Your task to perform on an android device: read, delete, or share a saved page in the chrome app Image 0: 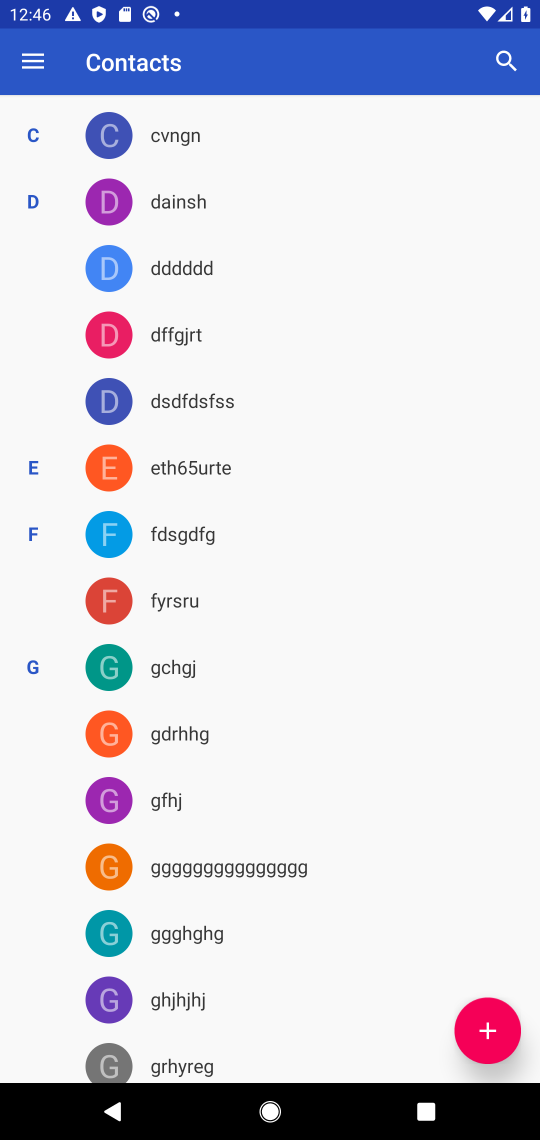
Step 0: press home button
Your task to perform on an android device: read, delete, or share a saved page in the chrome app Image 1: 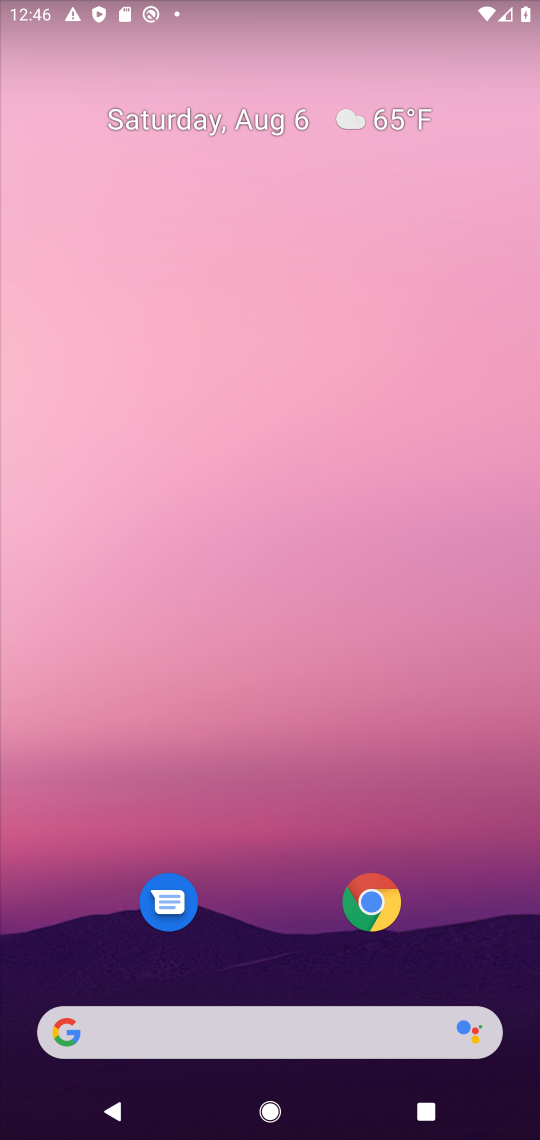
Step 1: click (380, 898)
Your task to perform on an android device: read, delete, or share a saved page in the chrome app Image 2: 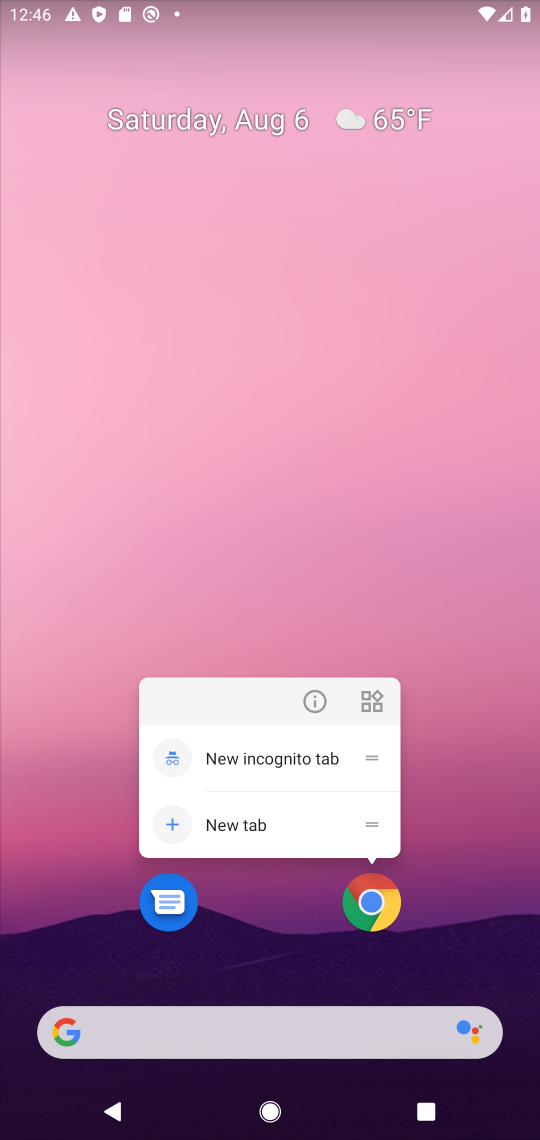
Step 2: click (361, 913)
Your task to perform on an android device: read, delete, or share a saved page in the chrome app Image 3: 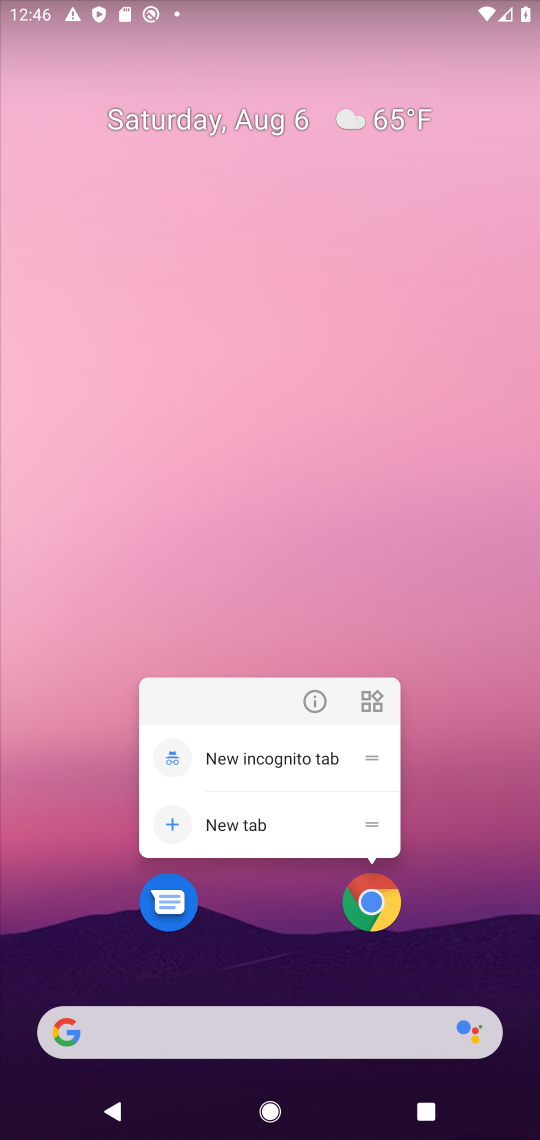
Step 3: click (374, 906)
Your task to perform on an android device: read, delete, or share a saved page in the chrome app Image 4: 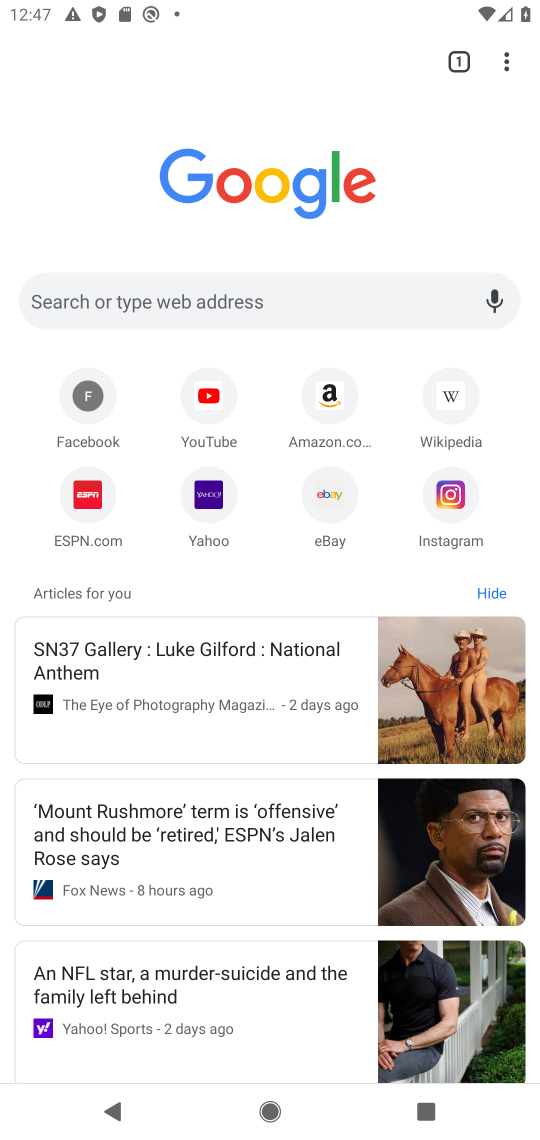
Step 4: click (514, 67)
Your task to perform on an android device: read, delete, or share a saved page in the chrome app Image 5: 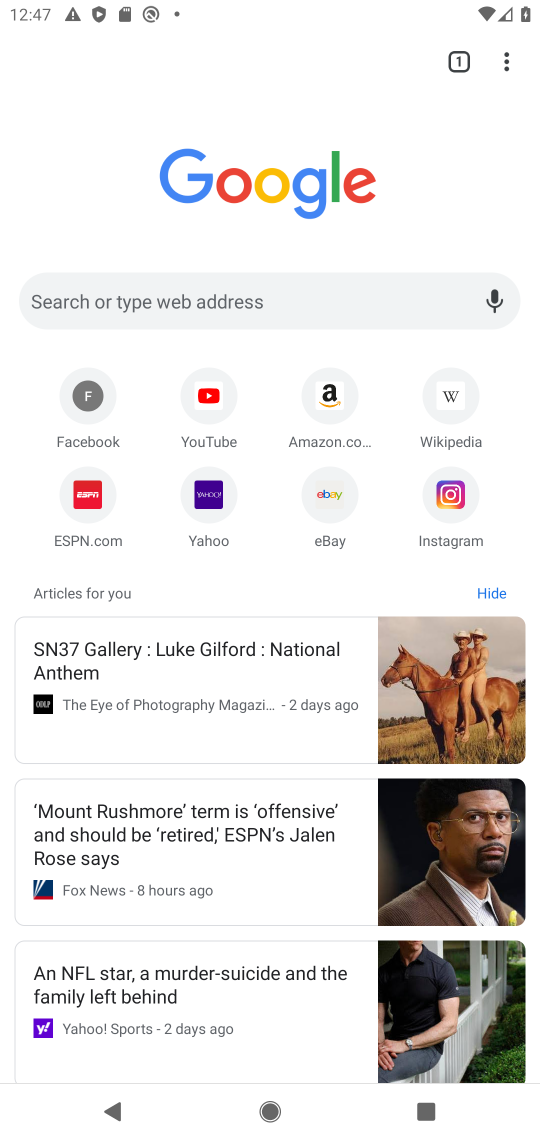
Step 5: click (503, 60)
Your task to perform on an android device: read, delete, or share a saved page in the chrome app Image 6: 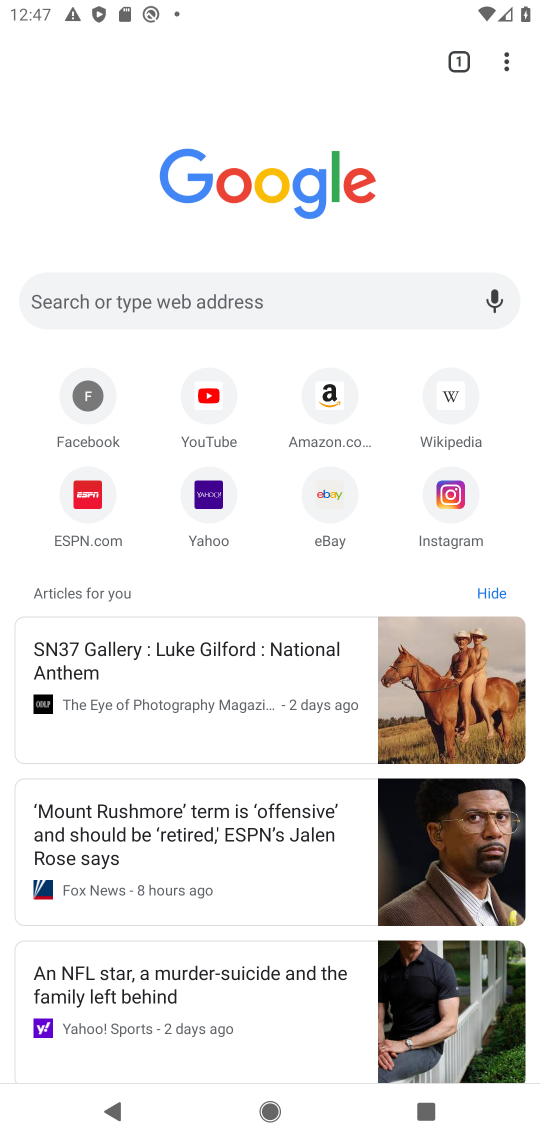
Step 6: click (506, 63)
Your task to perform on an android device: read, delete, or share a saved page in the chrome app Image 7: 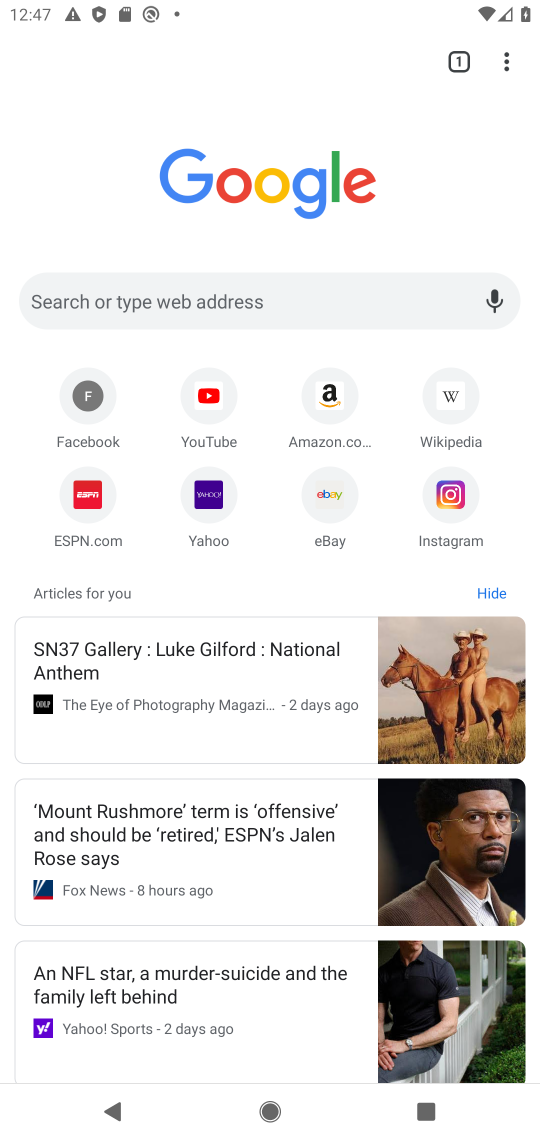
Step 7: click (512, 56)
Your task to perform on an android device: read, delete, or share a saved page in the chrome app Image 8: 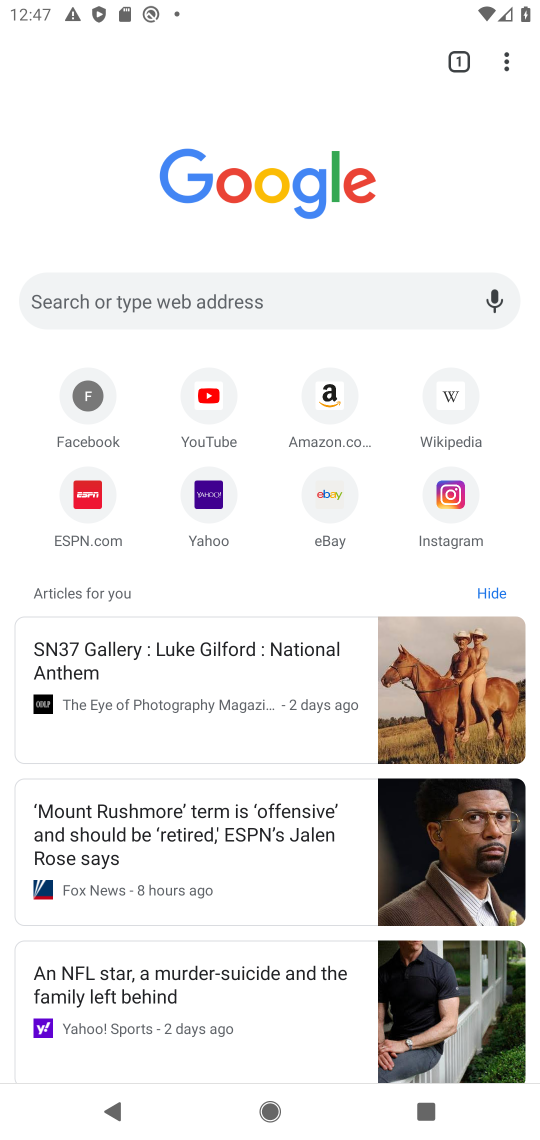
Step 8: click (501, 53)
Your task to perform on an android device: read, delete, or share a saved page in the chrome app Image 9: 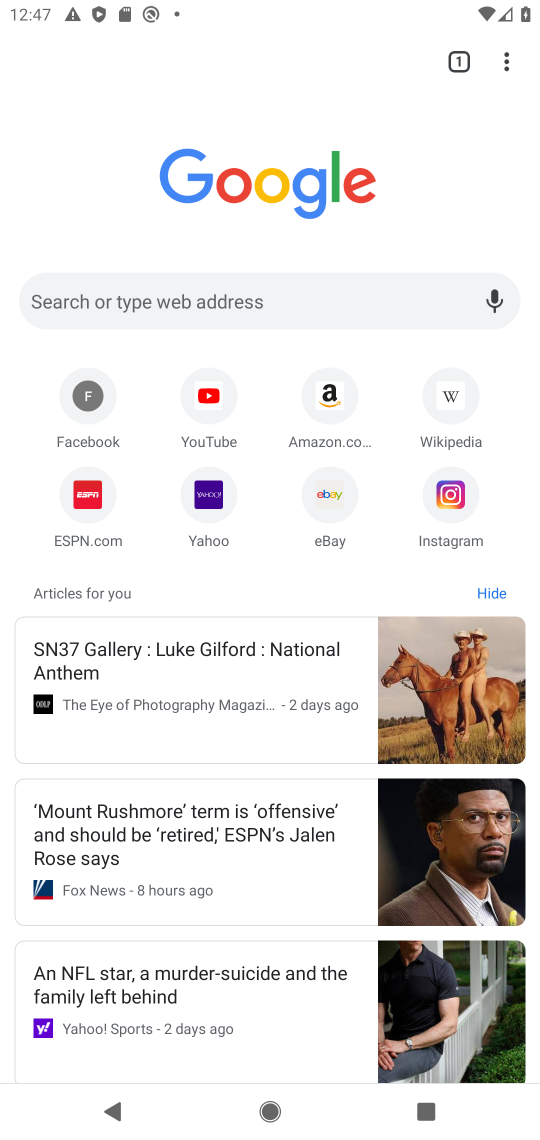
Step 9: click (510, 51)
Your task to perform on an android device: read, delete, or share a saved page in the chrome app Image 10: 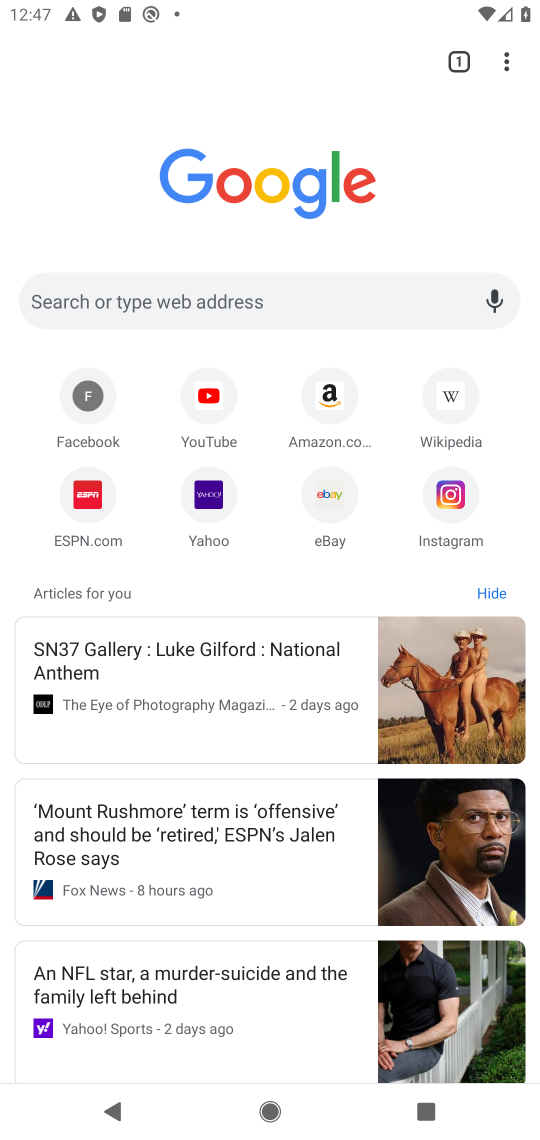
Step 10: click (506, 69)
Your task to perform on an android device: read, delete, or share a saved page in the chrome app Image 11: 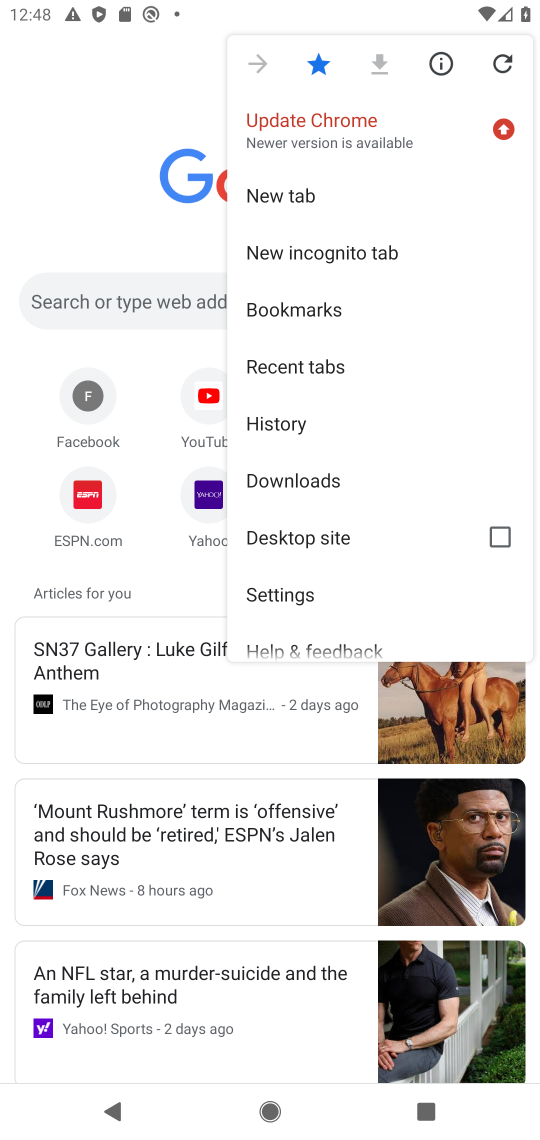
Step 11: click (288, 472)
Your task to perform on an android device: read, delete, or share a saved page in the chrome app Image 12: 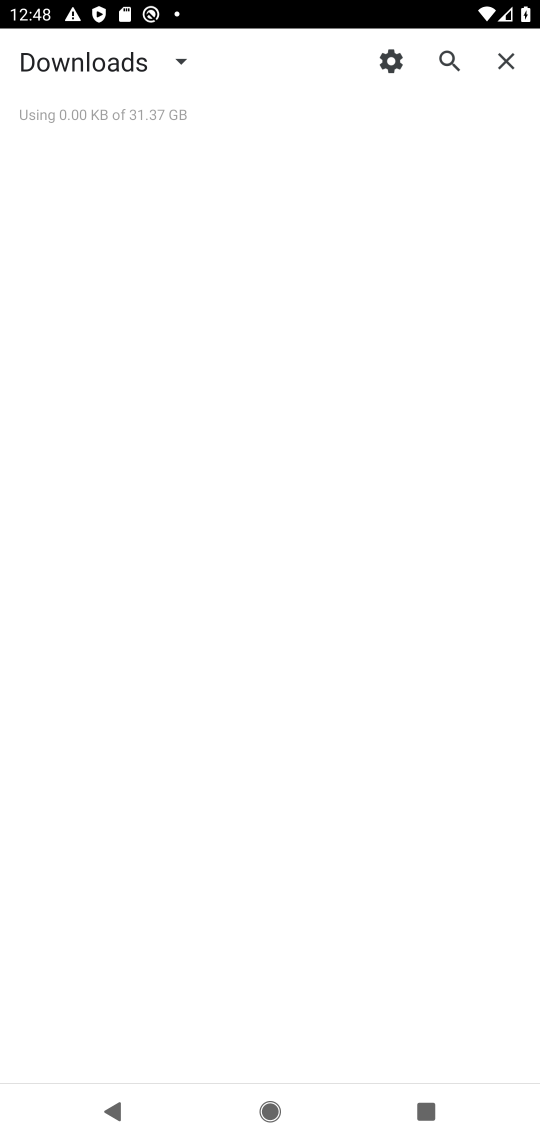
Step 12: task complete